Your task to perform on an android device: Do I have any events this weekend? Image 0: 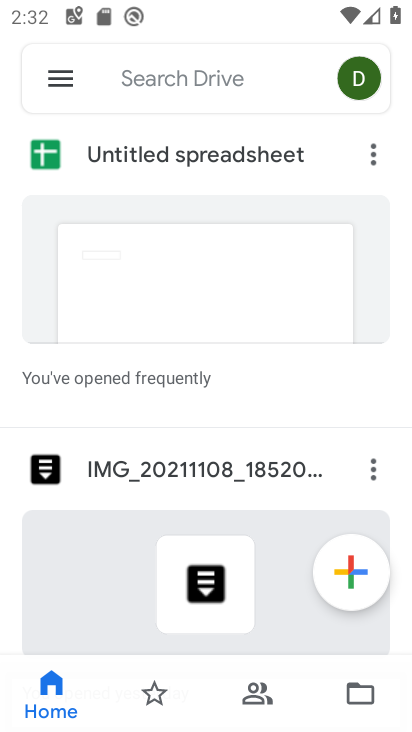
Step 0: press back button
Your task to perform on an android device: Do I have any events this weekend? Image 1: 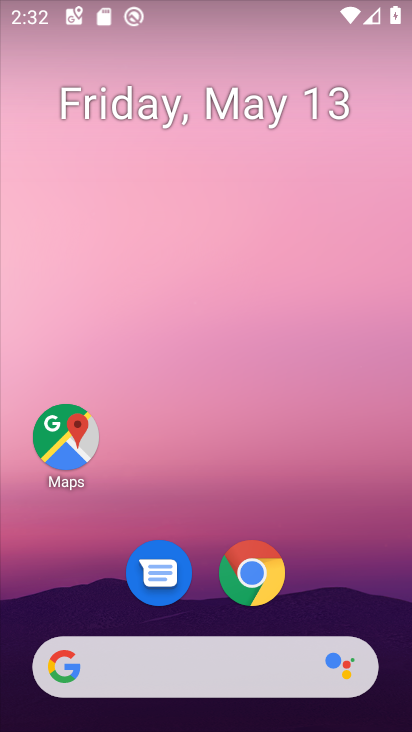
Step 1: drag from (274, 638) to (136, 123)
Your task to perform on an android device: Do I have any events this weekend? Image 2: 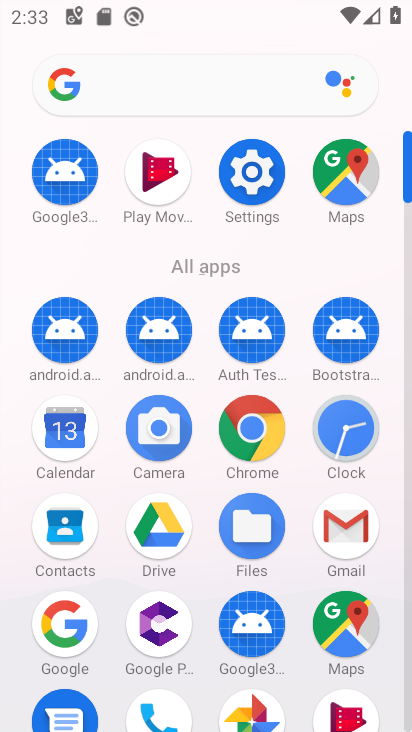
Step 2: click (63, 430)
Your task to perform on an android device: Do I have any events this weekend? Image 3: 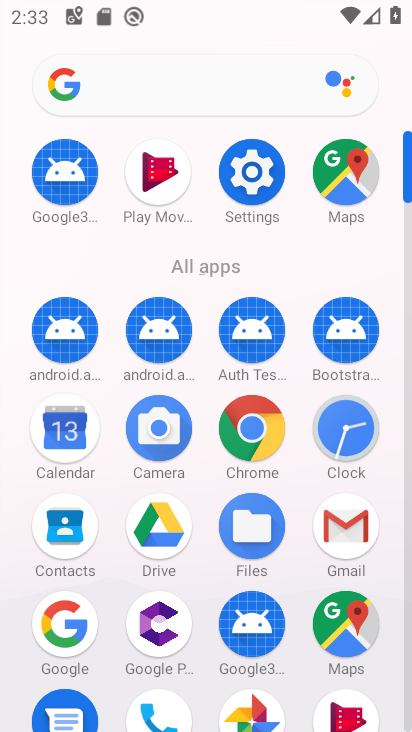
Step 3: click (63, 430)
Your task to perform on an android device: Do I have any events this weekend? Image 4: 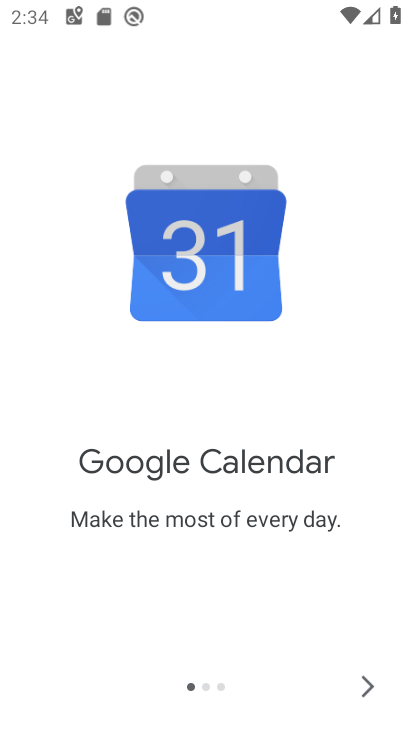
Step 4: click (363, 678)
Your task to perform on an android device: Do I have any events this weekend? Image 5: 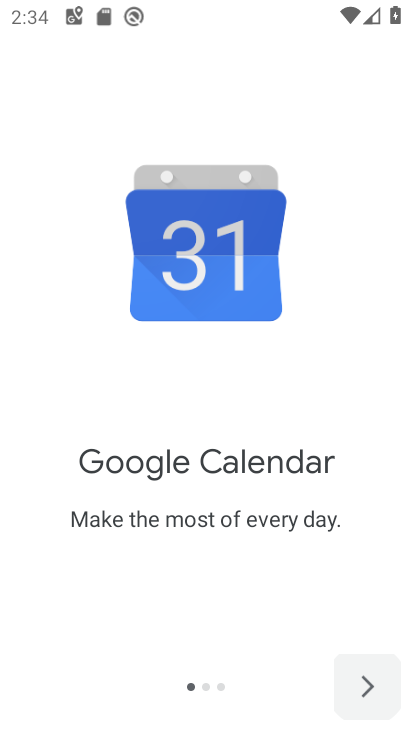
Step 5: click (363, 678)
Your task to perform on an android device: Do I have any events this weekend? Image 6: 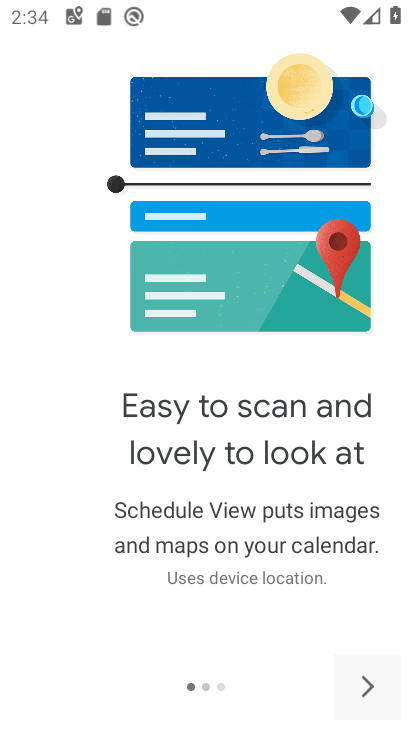
Step 6: click (363, 678)
Your task to perform on an android device: Do I have any events this weekend? Image 7: 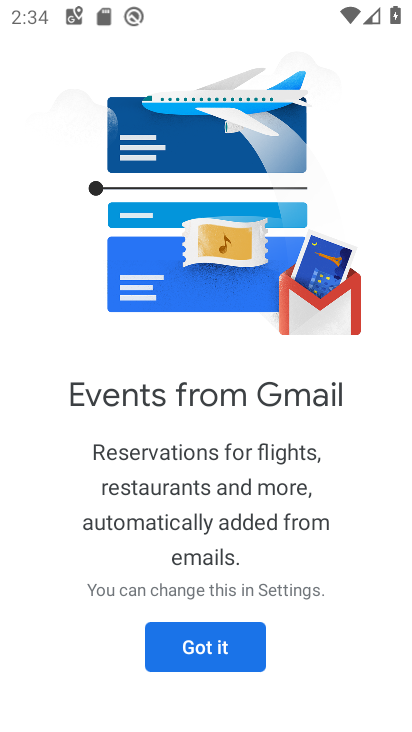
Step 7: click (363, 678)
Your task to perform on an android device: Do I have any events this weekend? Image 8: 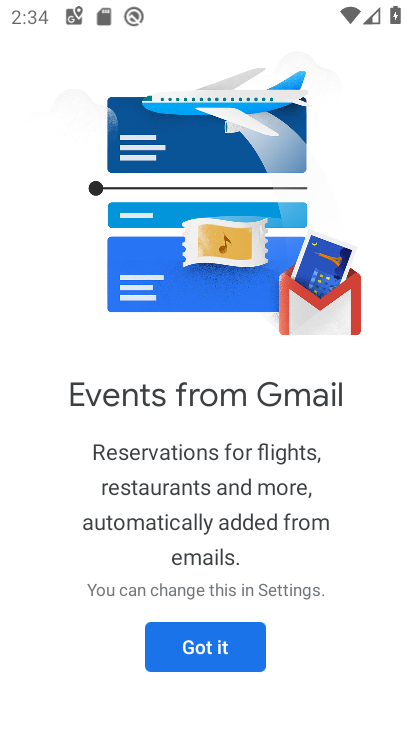
Step 8: click (231, 646)
Your task to perform on an android device: Do I have any events this weekend? Image 9: 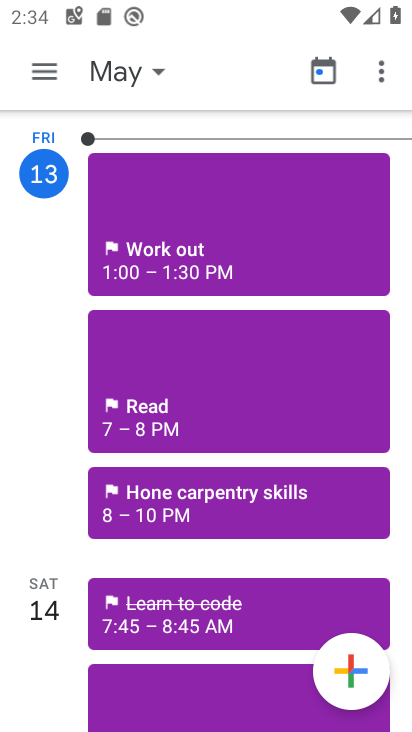
Step 9: click (148, 613)
Your task to perform on an android device: Do I have any events this weekend? Image 10: 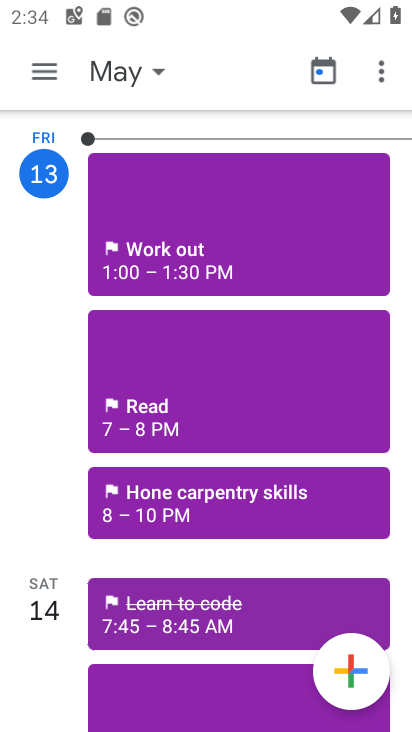
Step 10: click (153, 609)
Your task to perform on an android device: Do I have any events this weekend? Image 11: 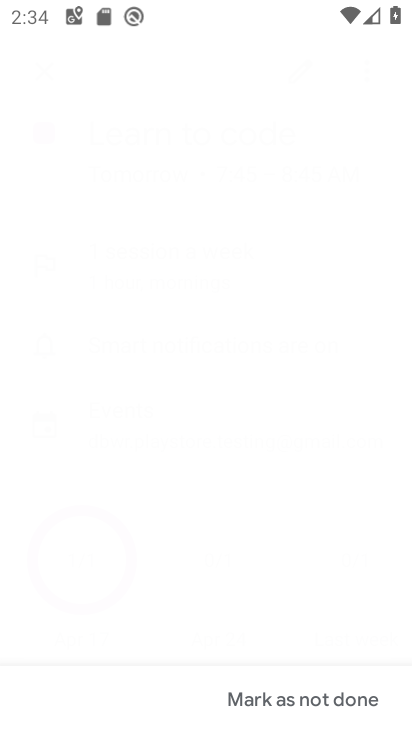
Step 11: click (153, 609)
Your task to perform on an android device: Do I have any events this weekend? Image 12: 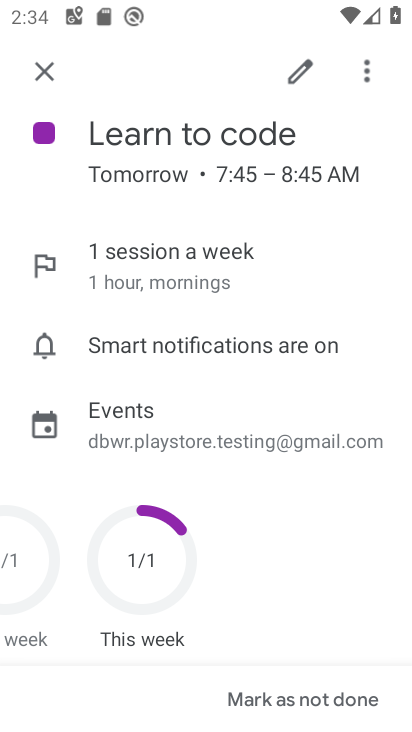
Step 12: click (156, 609)
Your task to perform on an android device: Do I have any events this weekend? Image 13: 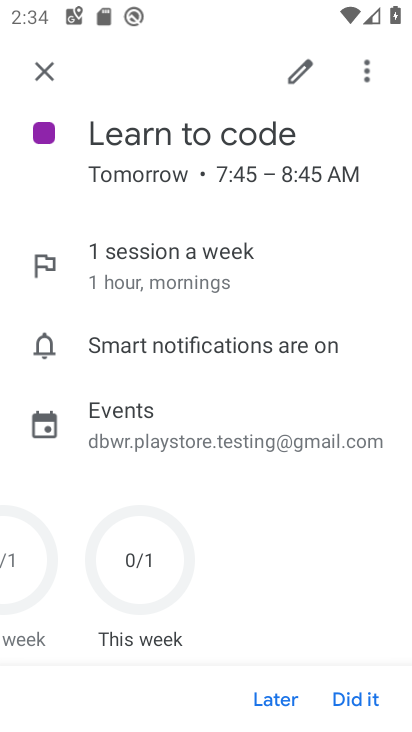
Step 13: click (45, 73)
Your task to perform on an android device: Do I have any events this weekend? Image 14: 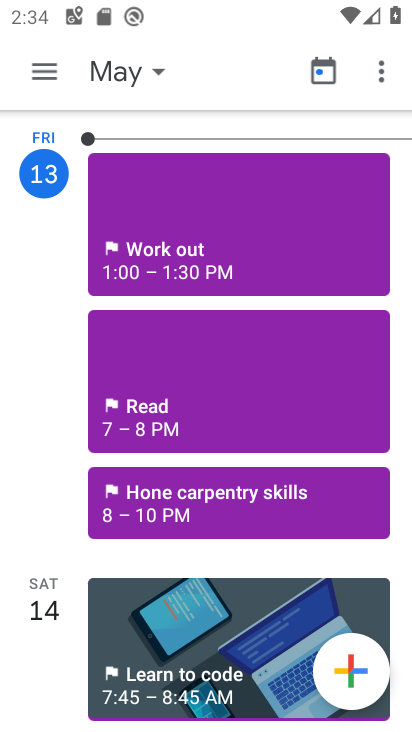
Step 14: task complete